Your task to perform on an android device: change the upload size in google photos Image 0: 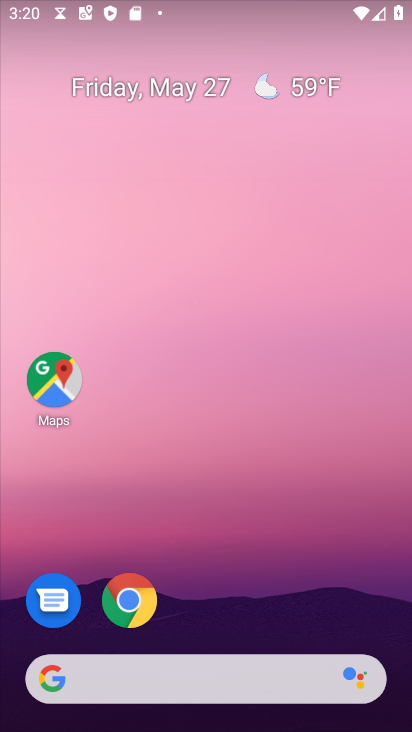
Step 0: drag from (251, 589) to (176, 120)
Your task to perform on an android device: change the upload size in google photos Image 1: 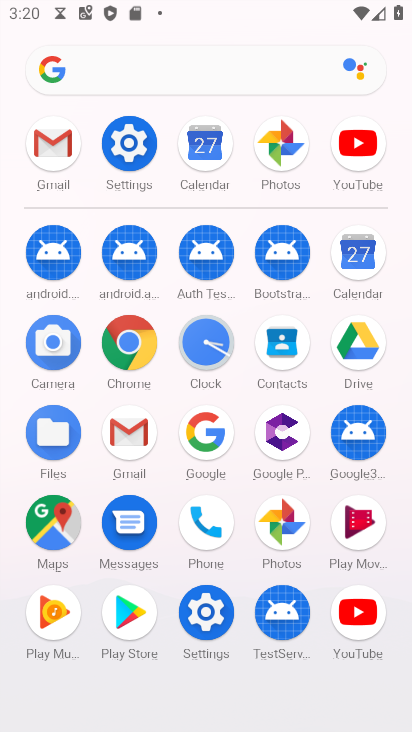
Step 1: click (281, 144)
Your task to perform on an android device: change the upload size in google photos Image 2: 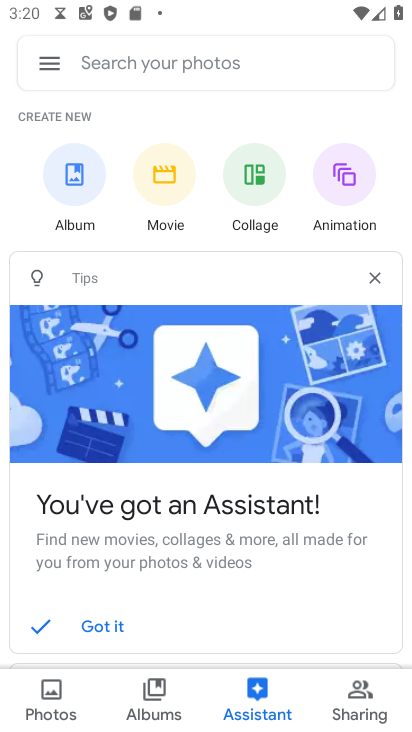
Step 2: click (48, 71)
Your task to perform on an android device: change the upload size in google photos Image 3: 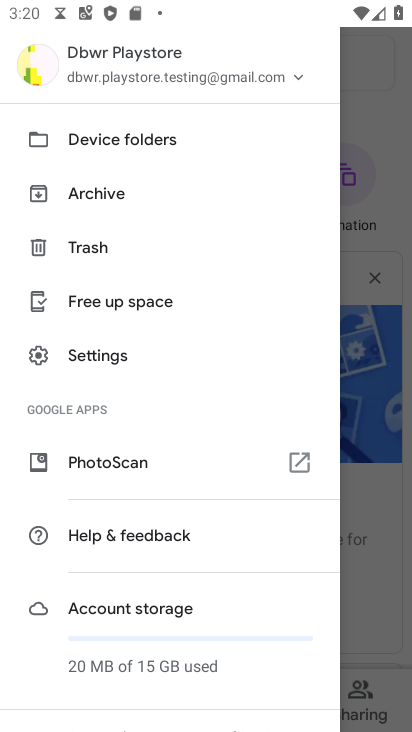
Step 3: click (97, 346)
Your task to perform on an android device: change the upload size in google photos Image 4: 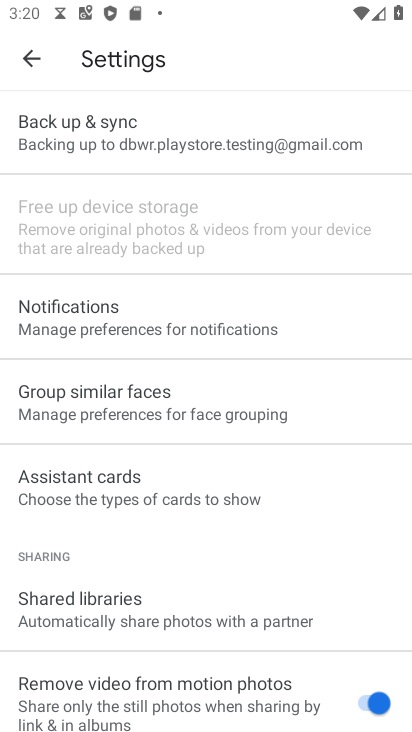
Step 4: click (130, 149)
Your task to perform on an android device: change the upload size in google photos Image 5: 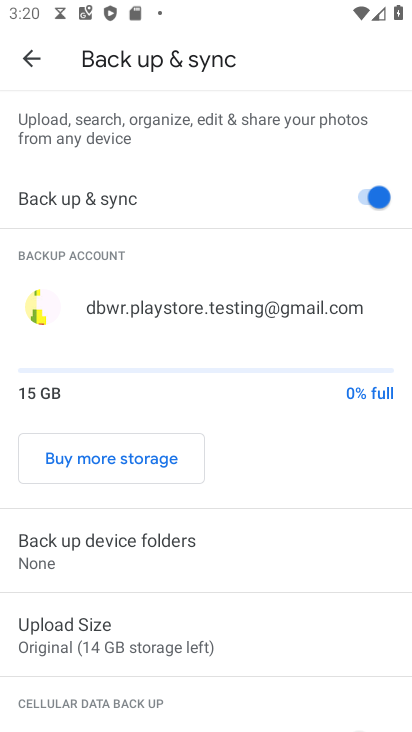
Step 5: click (148, 637)
Your task to perform on an android device: change the upload size in google photos Image 6: 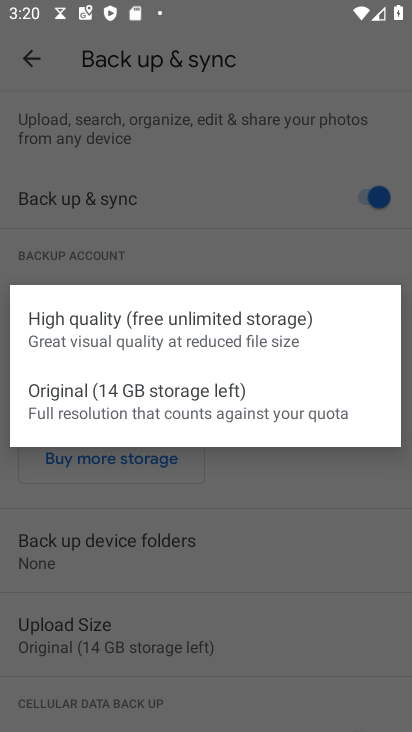
Step 6: click (172, 329)
Your task to perform on an android device: change the upload size in google photos Image 7: 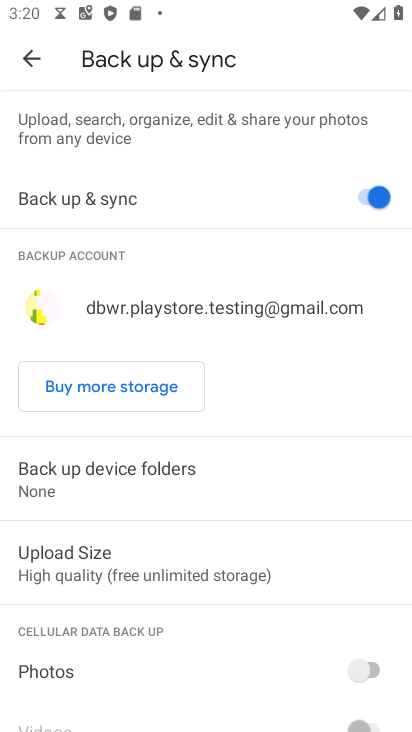
Step 7: task complete